Your task to perform on an android device: See recent photos Image 0: 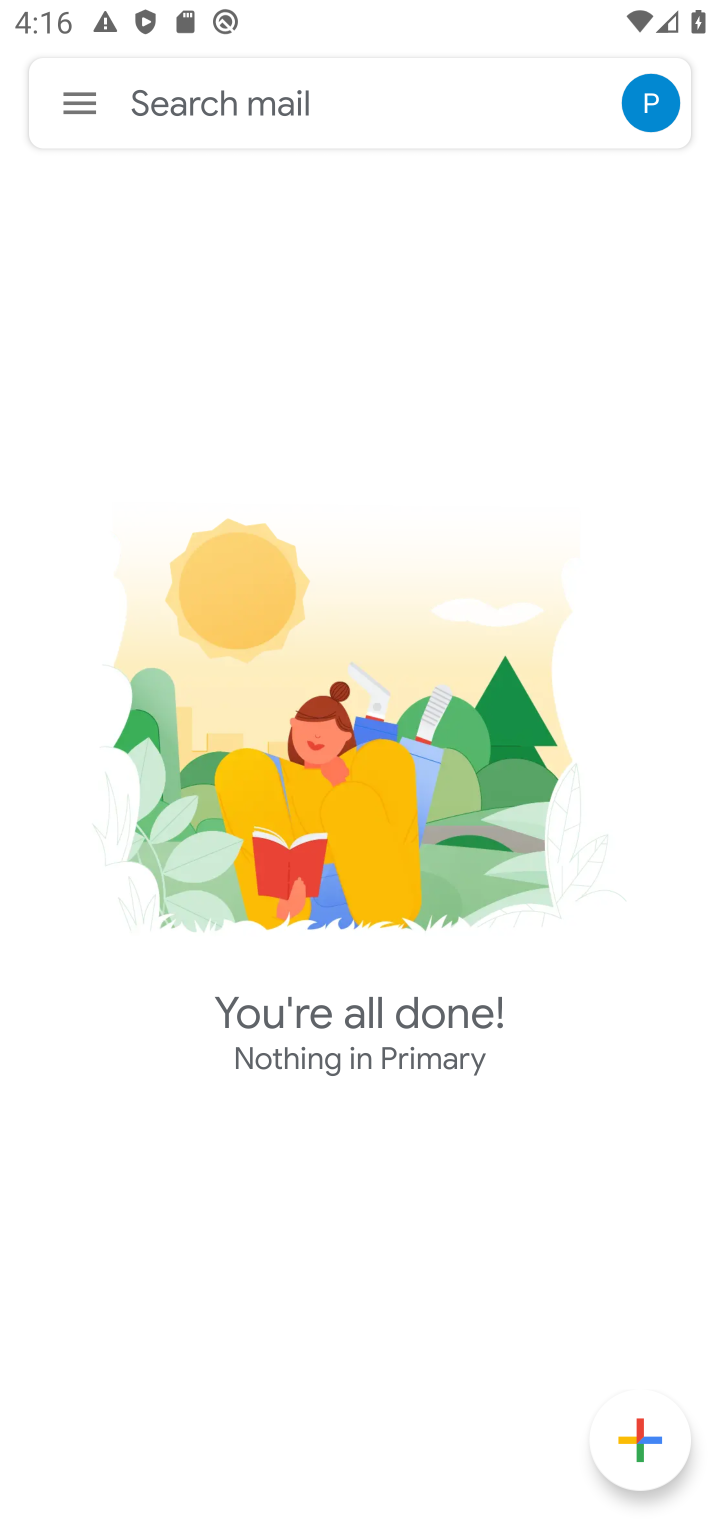
Step 0: task complete